Your task to perform on an android device: toggle show notifications on the lock screen Image 0: 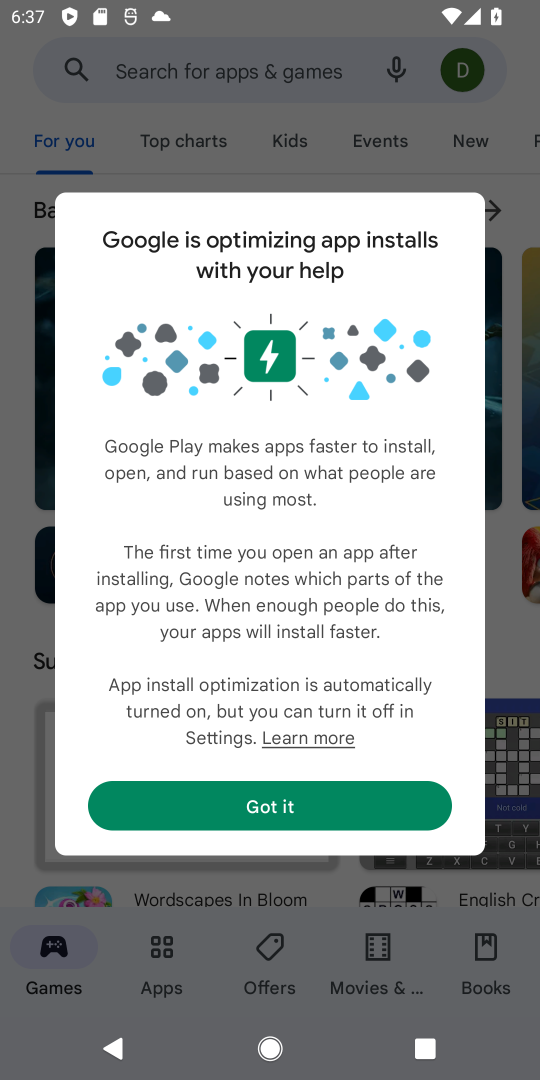
Step 0: click (262, 799)
Your task to perform on an android device: toggle show notifications on the lock screen Image 1: 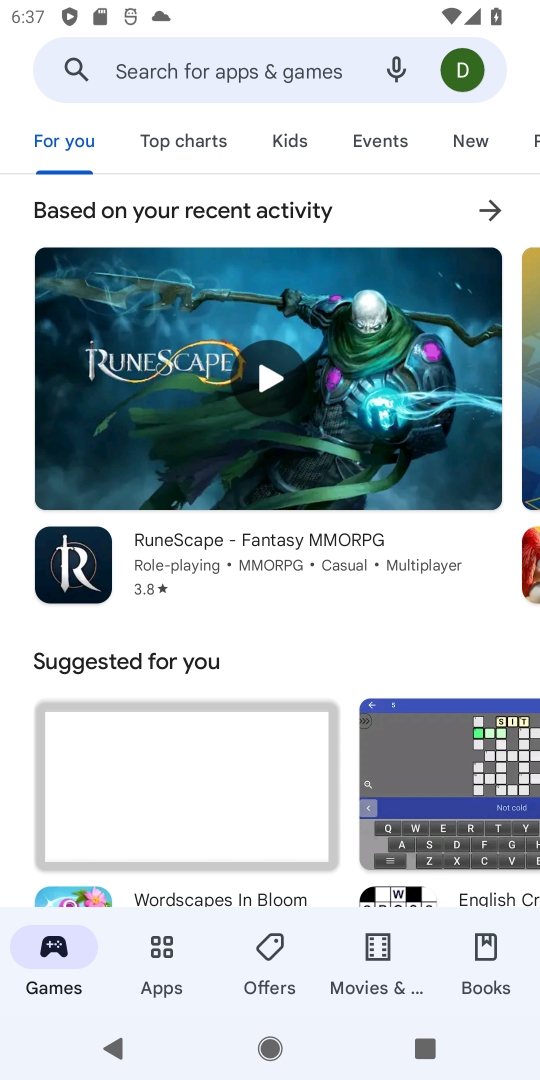
Step 1: press back button
Your task to perform on an android device: toggle show notifications on the lock screen Image 2: 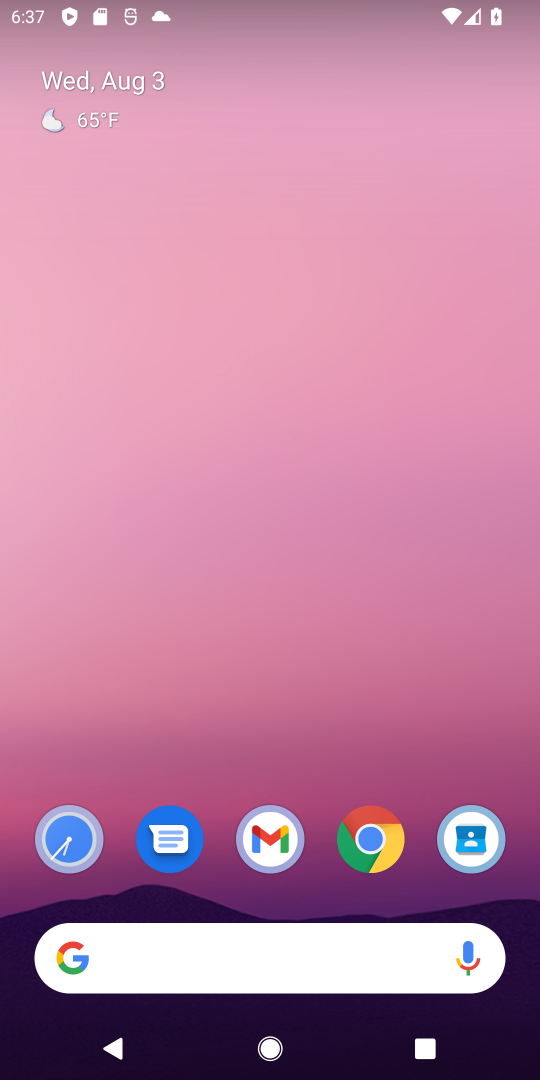
Step 2: drag from (211, 801) to (308, 9)
Your task to perform on an android device: toggle show notifications on the lock screen Image 3: 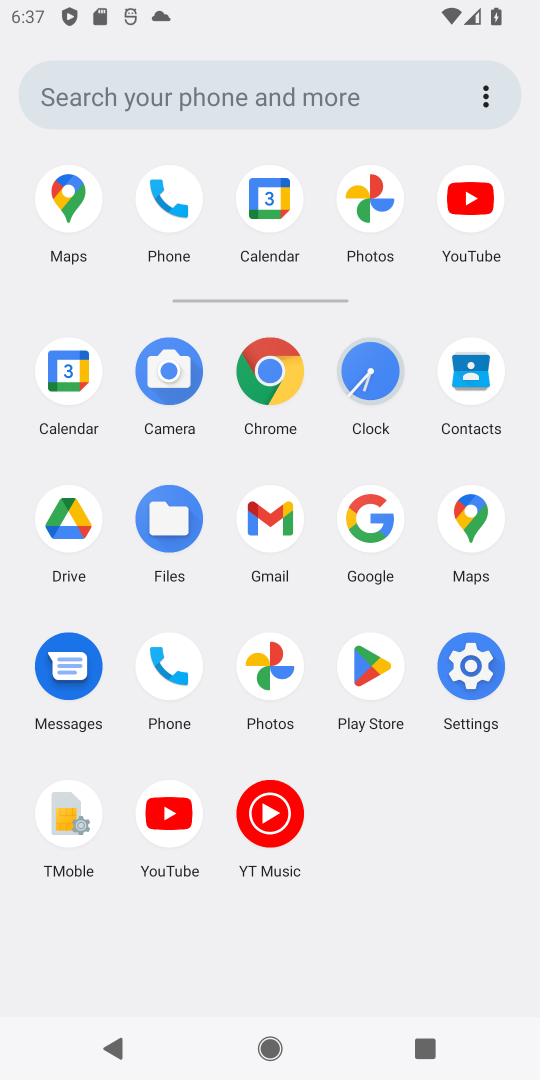
Step 3: click (462, 672)
Your task to perform on an android device: toggle show notifications on the lock screen Image 4: 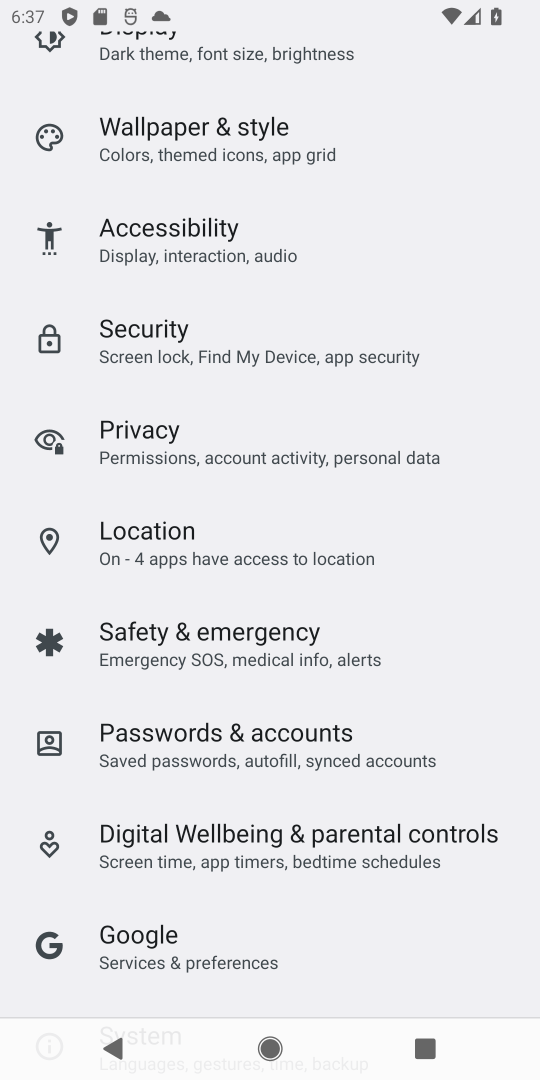
Step 4: drag from (281, 323) to (290, 1079)
Your task to perform on an android device: toggle show notifications on the lock screen Image 5: 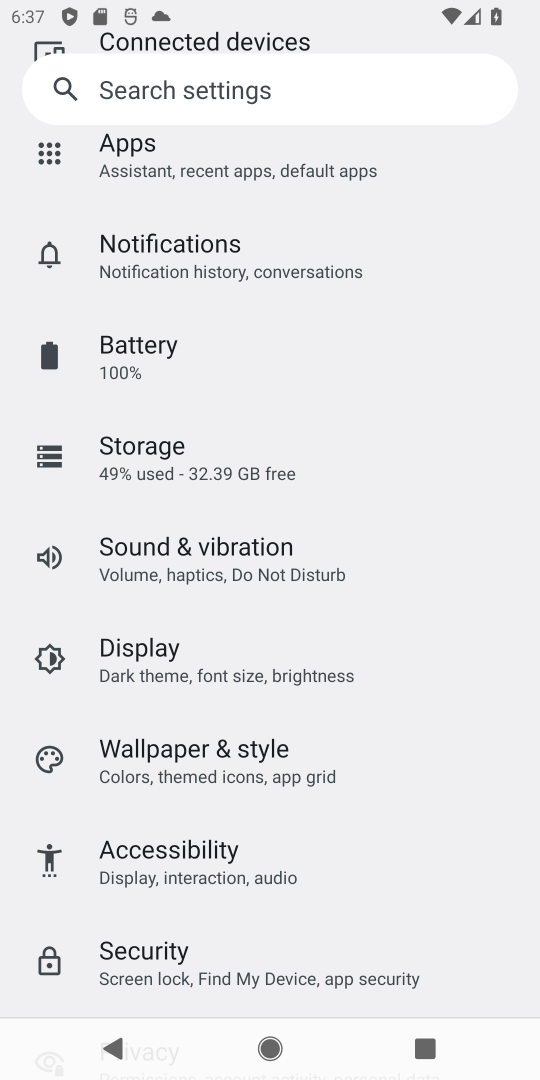
Step 5: click (194, 241)
Your task to perform on an android device: toggle show notifications on the lock screen Image 6: 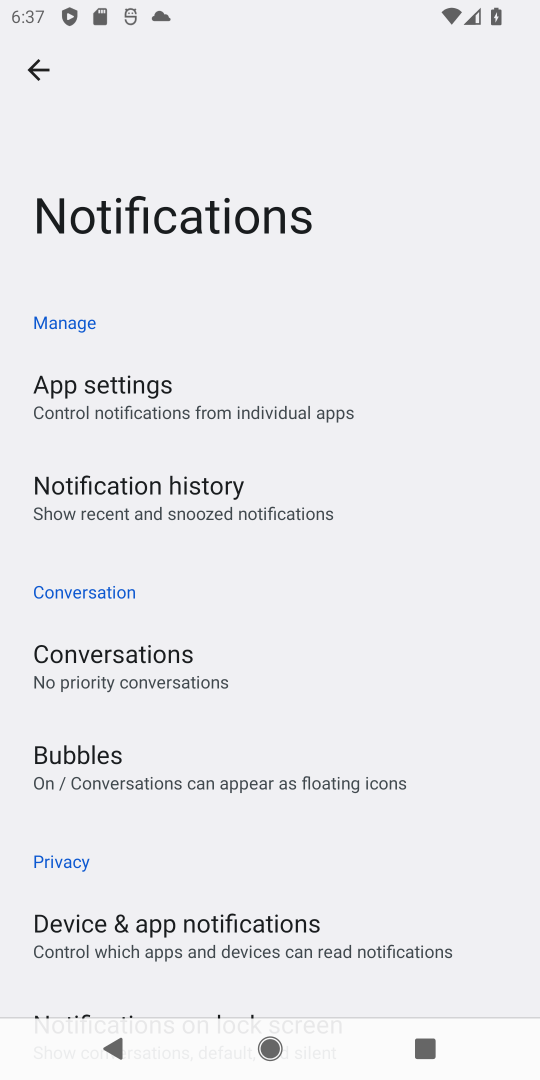
Step 6: drag from (229, 936) to (329, 154)
Your task to perform on an android device: toggle show notifications on the lock screen Image 7: 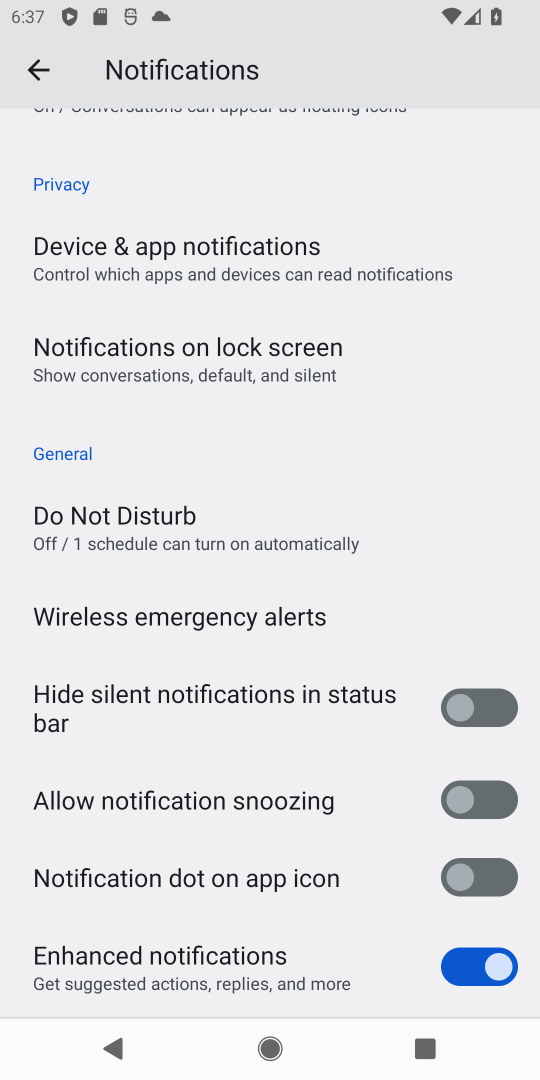
Step 7: click (236, 334)
Your task to perform on an android device: toggle show notifications on the lock screen Image 8: 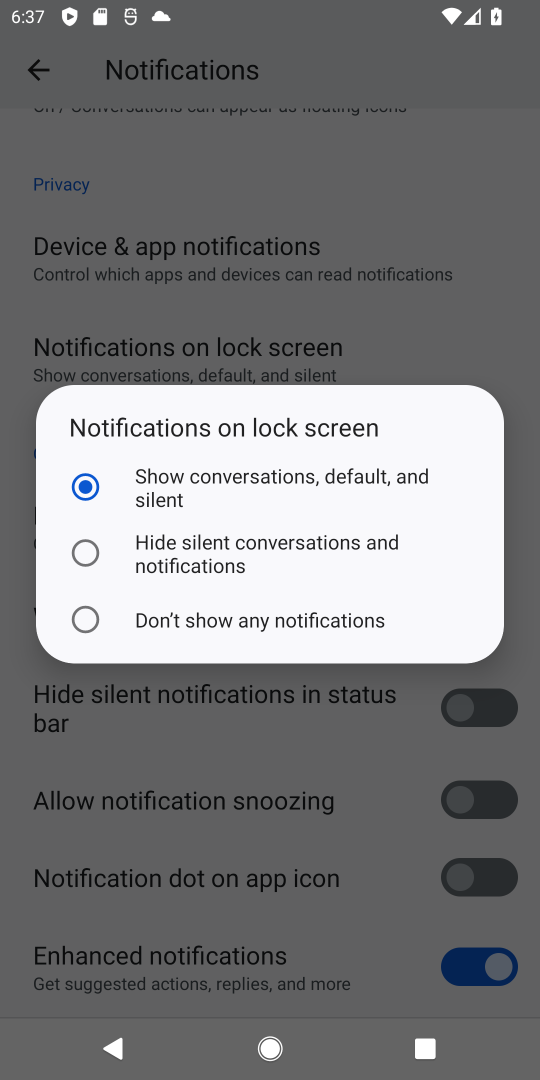
Step 8: click (103, 494)
Your task to perform on an android device: toggle show notifications on the lock screen Image 9: 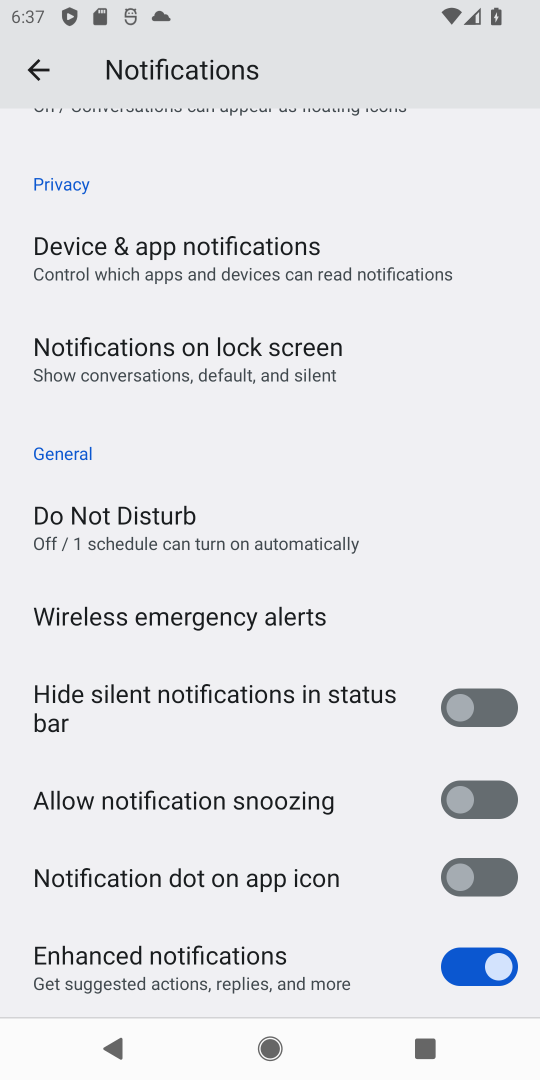
Step 9: task complete